Your task to perform on an android device: open chrome and create a bookmark for the current page Image 0: 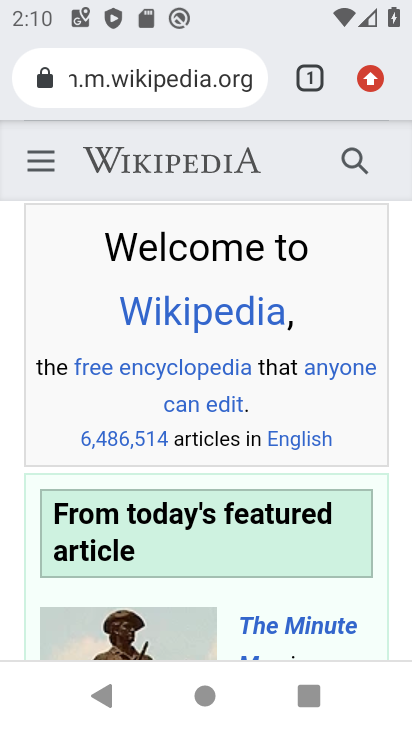
Step 0: click (375, 81)
Your task to perform on an android device: open chrome and create a bookmark for the current page Image 1: 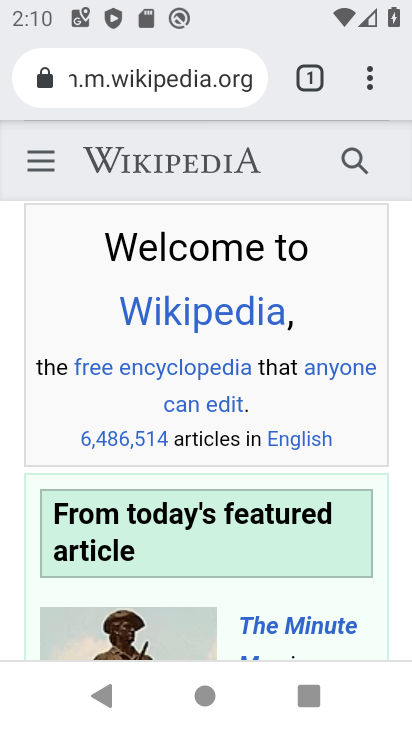
Step 1: click (375, 81)
Your task to perform on an android device: open chrome and create a bookmark for the current page Image 2: 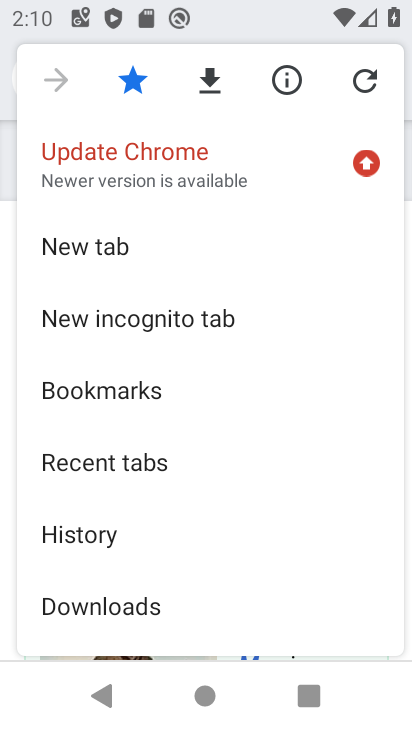
Step 2: task complete